Your task to perform on an android device: turn off javascript in the chrome app Image 0: 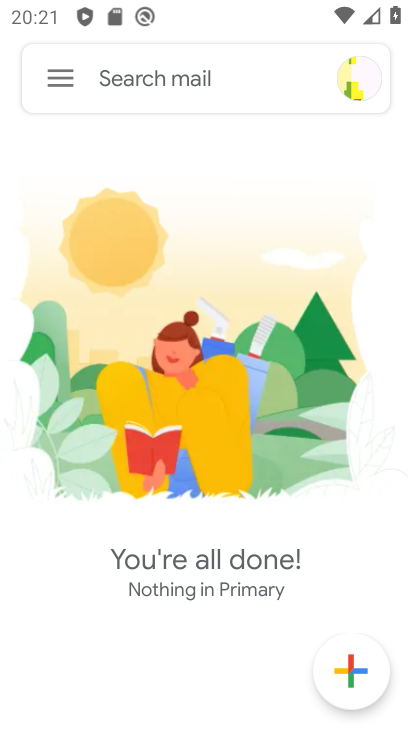
Step 0: press home button
Your task to perform on an android device: turn off javascript in the chrome app Image 1: 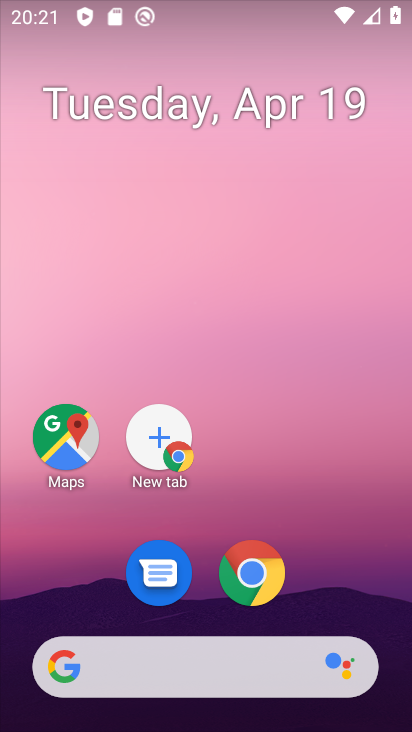
Step 1: drag from (376, 336) to (351, 102)
Your task to perform on an android device: turn off javascript in the chrome app Image 2: 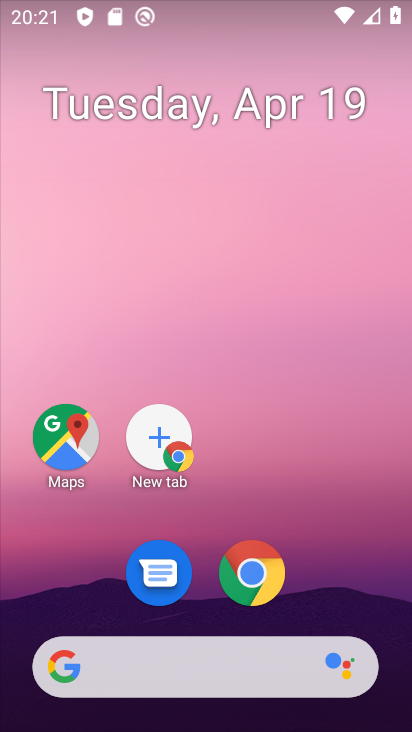
Step 2: drag from (397, 637) to (347, 100)
Your task to perform on an android device: turn off javascript in the chrome app Image 3: 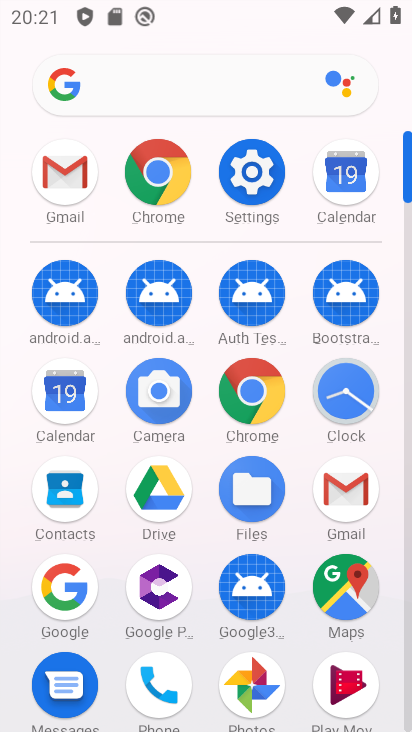
Step 3: click (155, 170)
Your task to perform on an android device: turn off javascript in the chrome app Image 4: 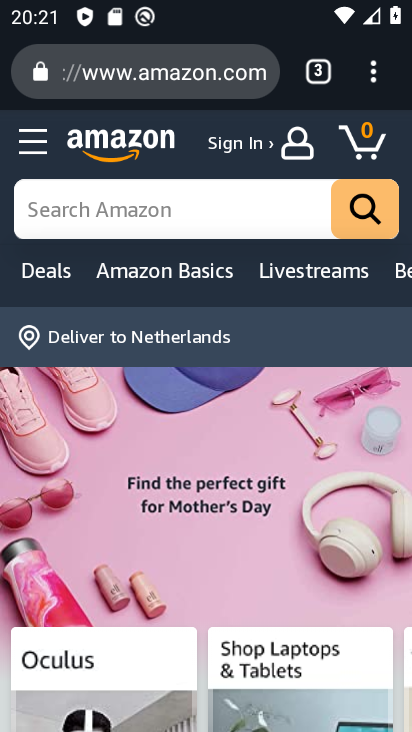
Step 4: click (373, 74)
Your task to perform on an android device: turn off javascript in the chrome app Image 5: 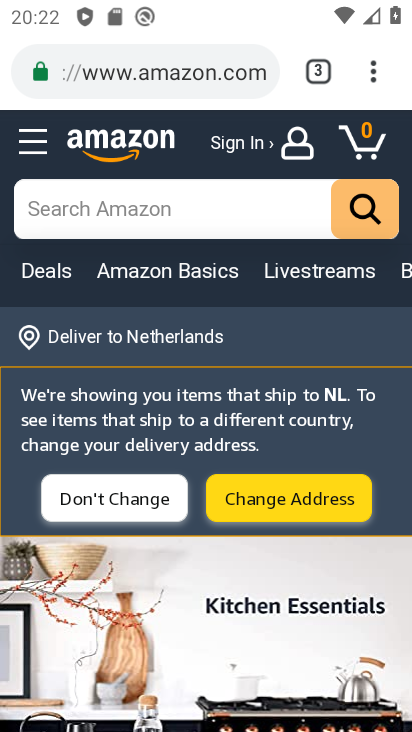
Step 5: click (366, 66)
Your task to perform on an android device: turn off javascript in the chrome app Image 6: 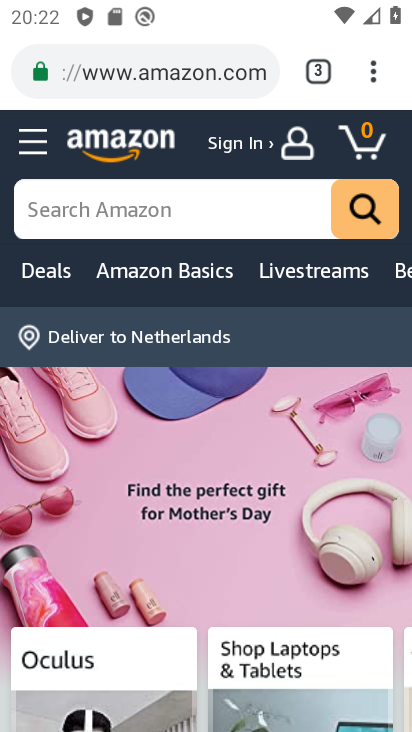
Step 6: click (371, 75)
Your task to perform on an android device: turn off javascript in the chrome app Image 7: 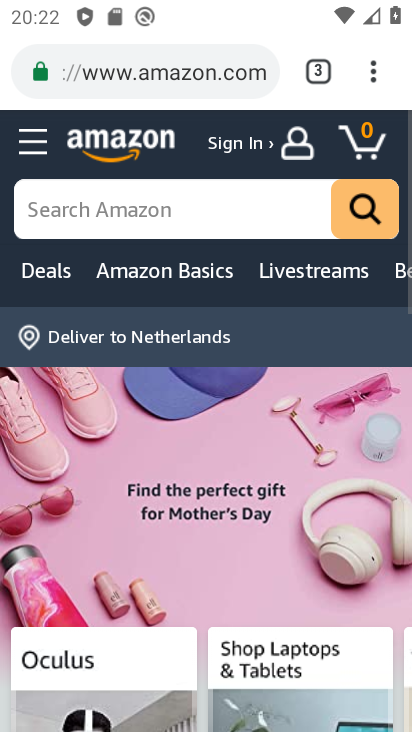
Step 7: click (371, 75)
Your task to perform on an android device: turn off javascript in the chrome app Image 8: 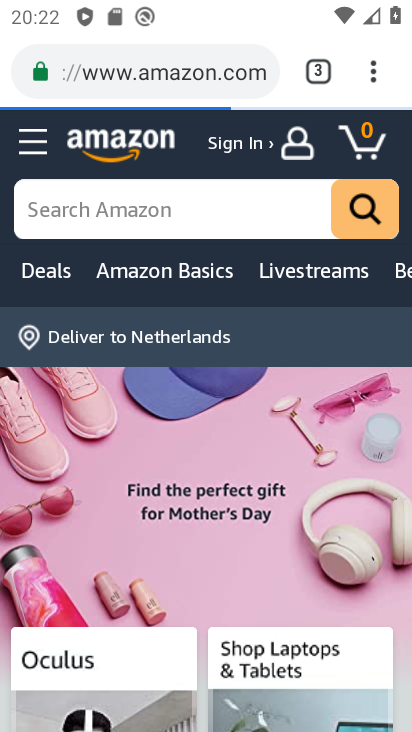
Step 8: click (371, 75)
Your task to perform on an android device: turn off javascript in the chrome app Image 9: 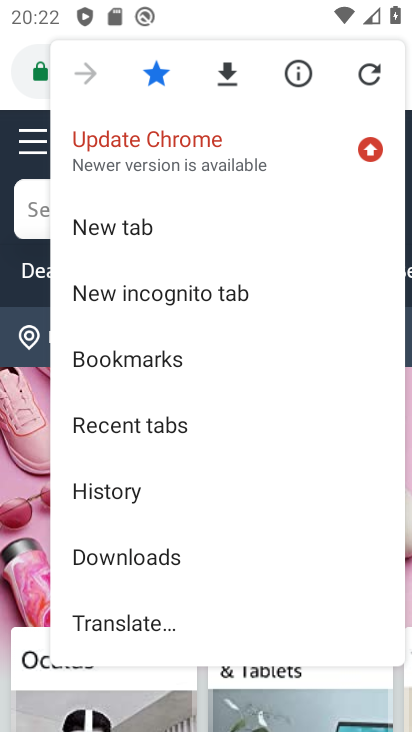
Step 9: drag from (267, 524) to (260, 279)
Your task to perform on an android device: turn off javascript in the chrome app Image 10: 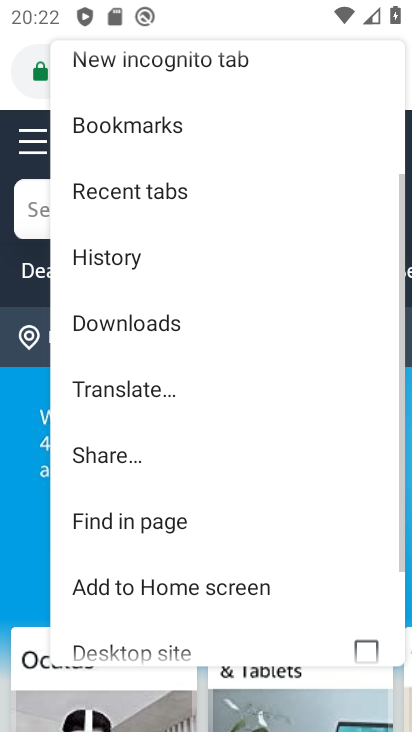
Step 10: drag from (287, 465) to (278, 276)
Your task to perform on an android device: turn off javascript in the chrome app Image 11: 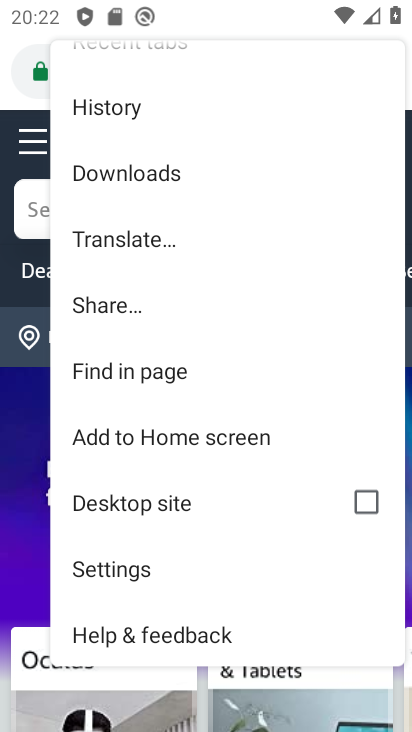
Step 11: click (115, 568)
Your task to perform on an android device: turn off javascript in the chrome app Image 12: 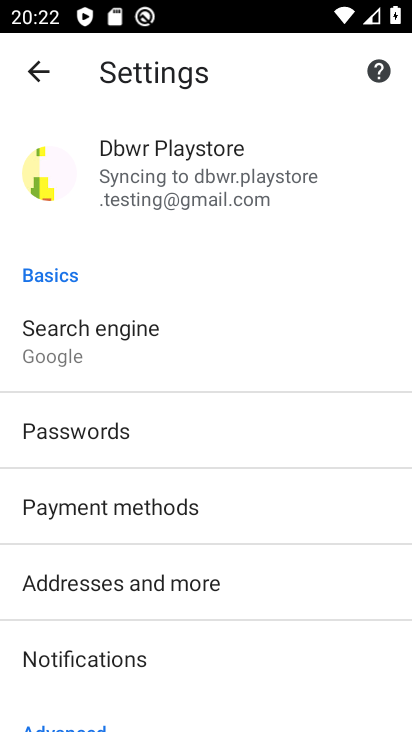
Step 12: drag from (289, 626) to (287, 284)
Your task to perform on an android device: turn off javascript in the chrome app Image 13: 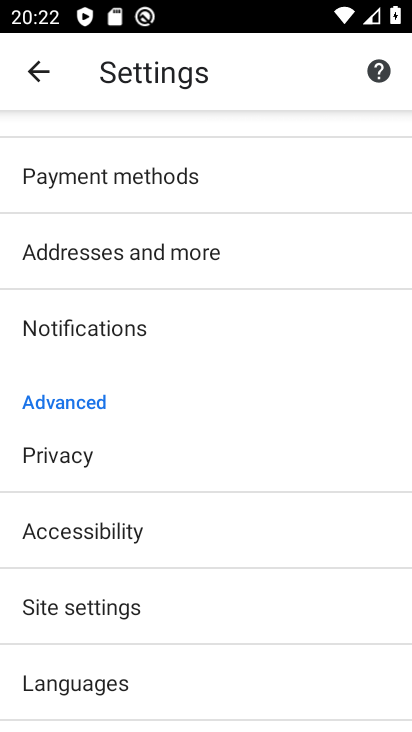
Step 13: click (75, 607)
Your task to perform on an android device: turn off javascript in the chrome app Image 14: 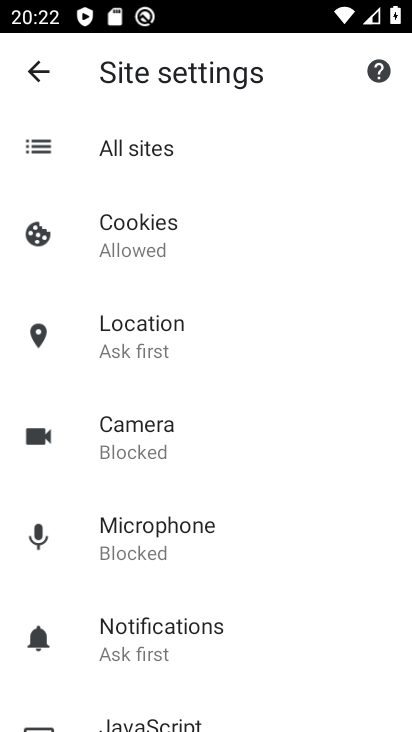
Step 14: click (166, 717)
Your task to perform on an android device: turn off javascript in the chrome app Image 15: 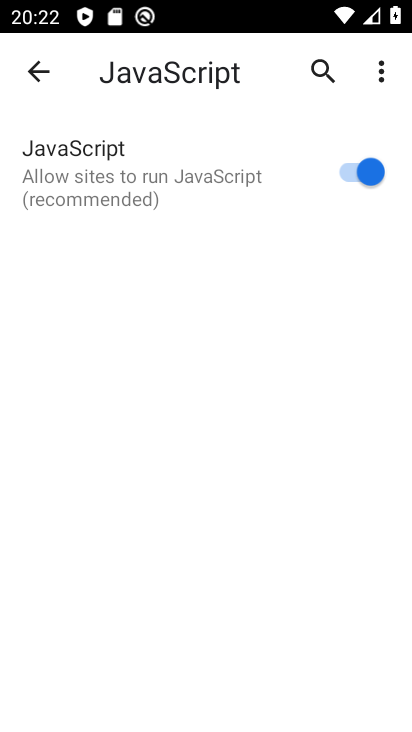
Step 15: click (348, 179)
Your task to perform on an android device: turn off javascript in the chrome app Image 16: 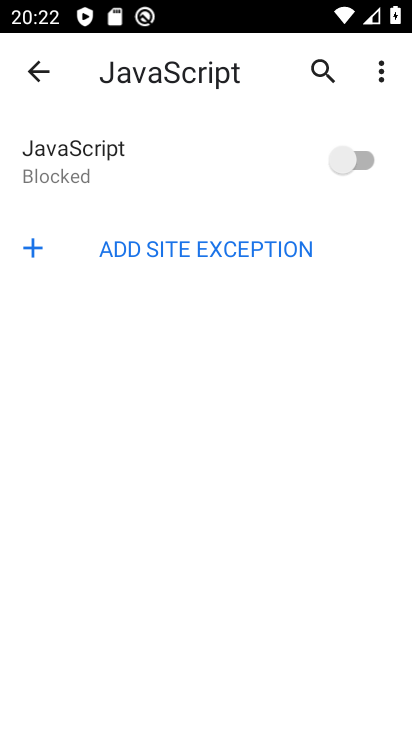
Step 16: task complete